Your task to perform on an android device: Open Chrome and go to settings Image 0: 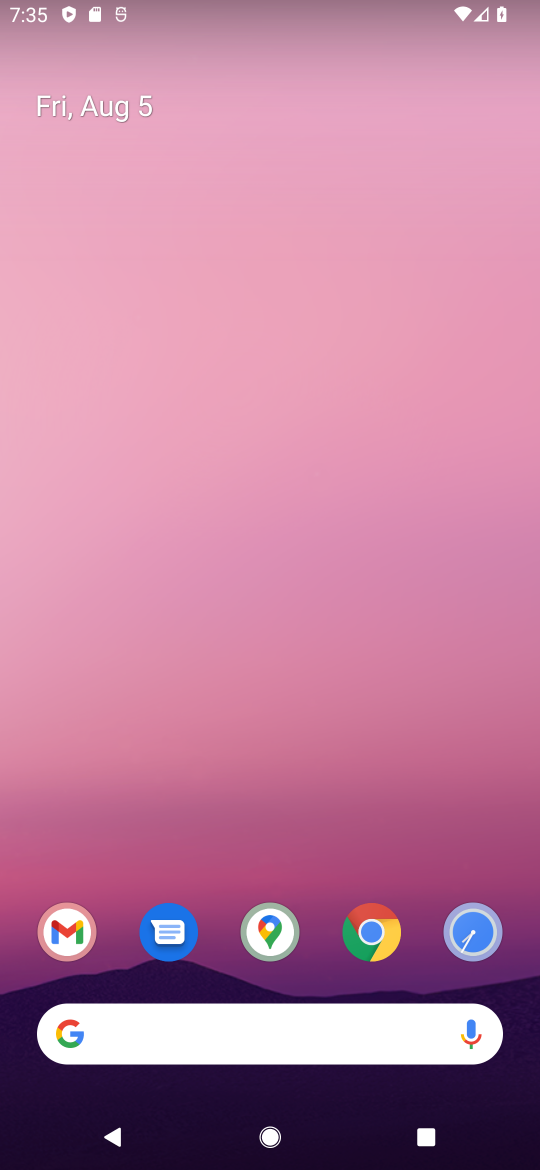
Step 0: drag from (421, 785) to (63, 7)
Your task to perform on an android device: Open Chrome and go to settings Image 1: 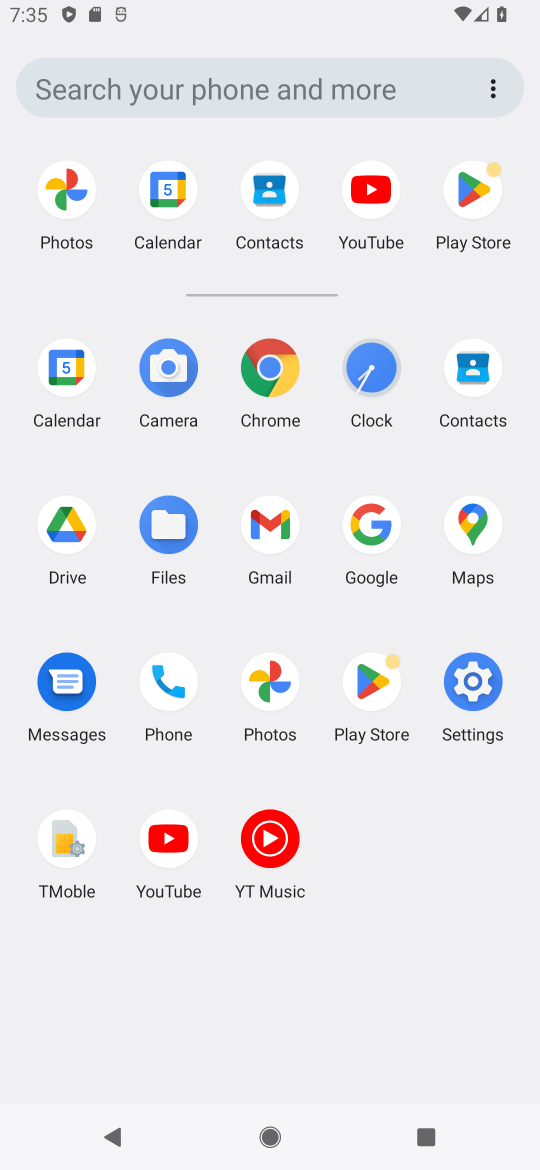
Step 1: click (278, 365)
Your task to perform on an android device: Open Chrome and go to settings Image 2: 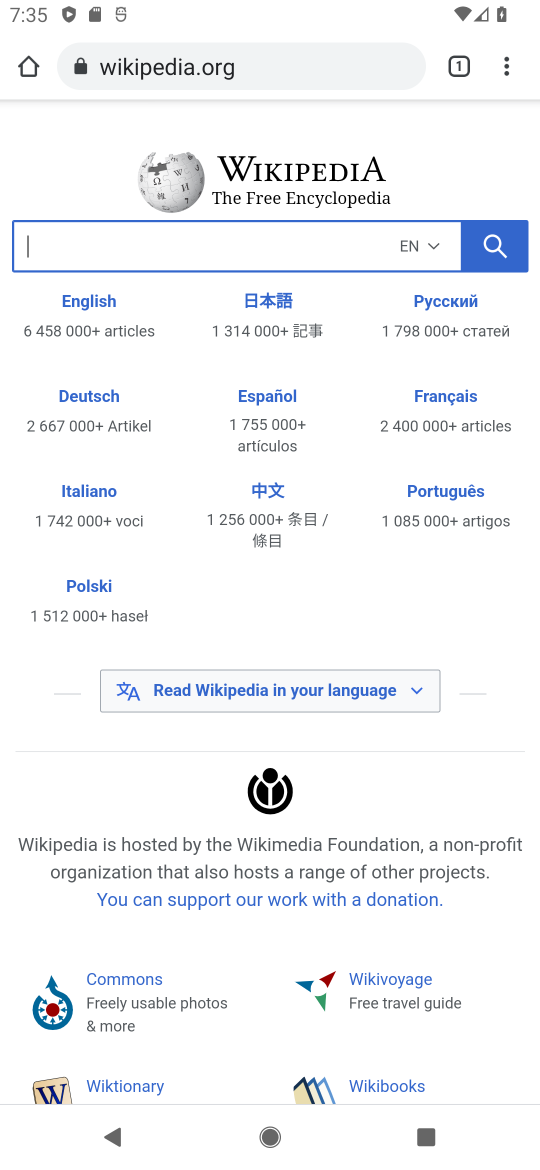
Step 2: task complete